Your task to perform on an android device: Open Chrome and go to settings Image 0: 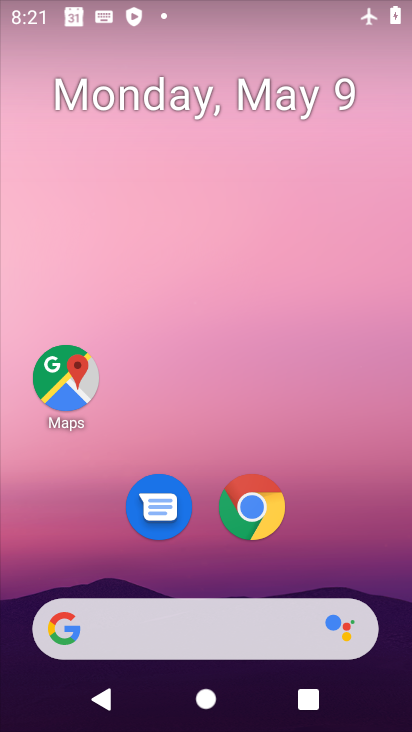
Step 0: click (252, 527)
Your task to perform on an android device: Open Chrome and go to settings Image 1: 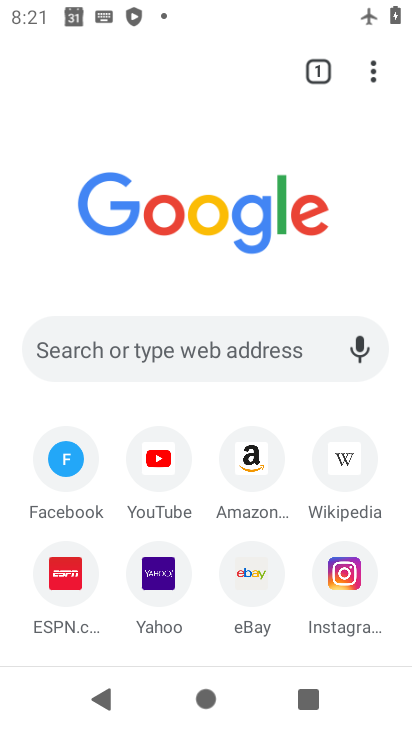
Step 1: click (372, 69)
Your task to perform on an android device: Open Chrome and go to settings Image 2: 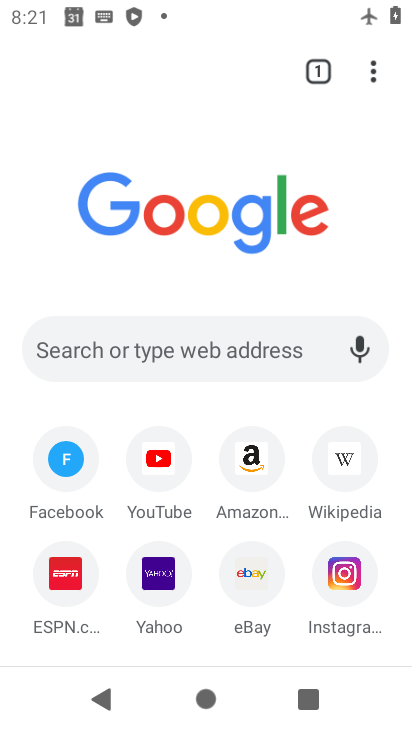
Step 2: click (368, 86)
Your task to perform on an android device: Open Chrome and go to settings Image 3: 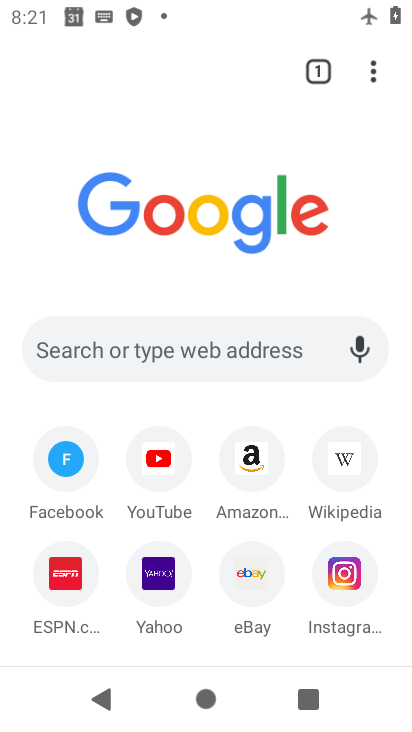
Step 3: task complete